Your task to perform on an android device: Show me popular videos on Youtube Image 0: 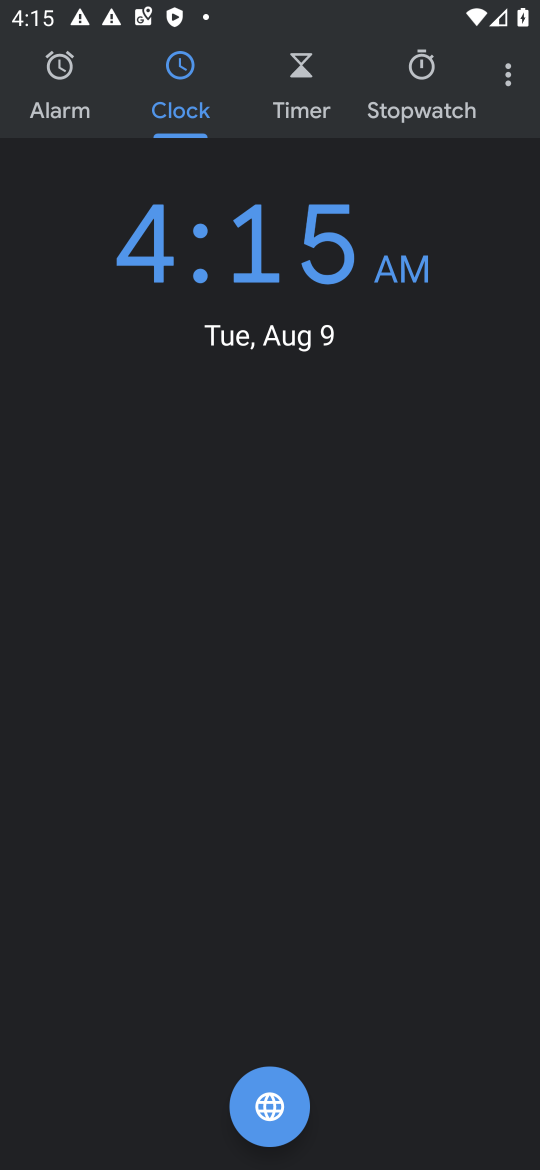
Step 0: press home button
Your task to perform on an android device: Show me popular videos on Youtube Image 1: 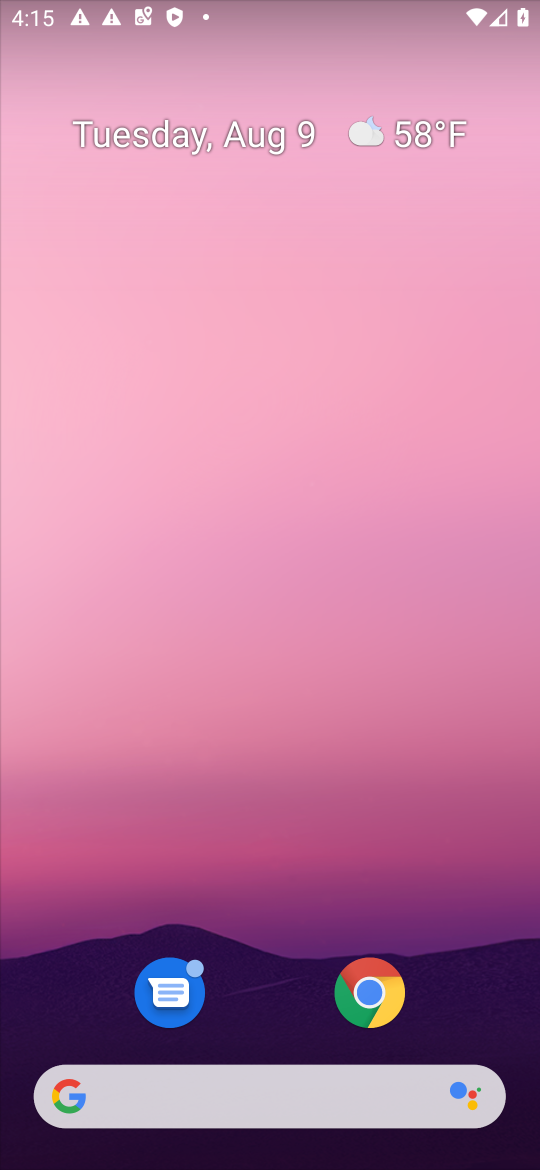
Step 1: drag from (256, 1118) to (142, 54)
Your task to perform on an android device: Show me popular videos on Youtube Image 2: 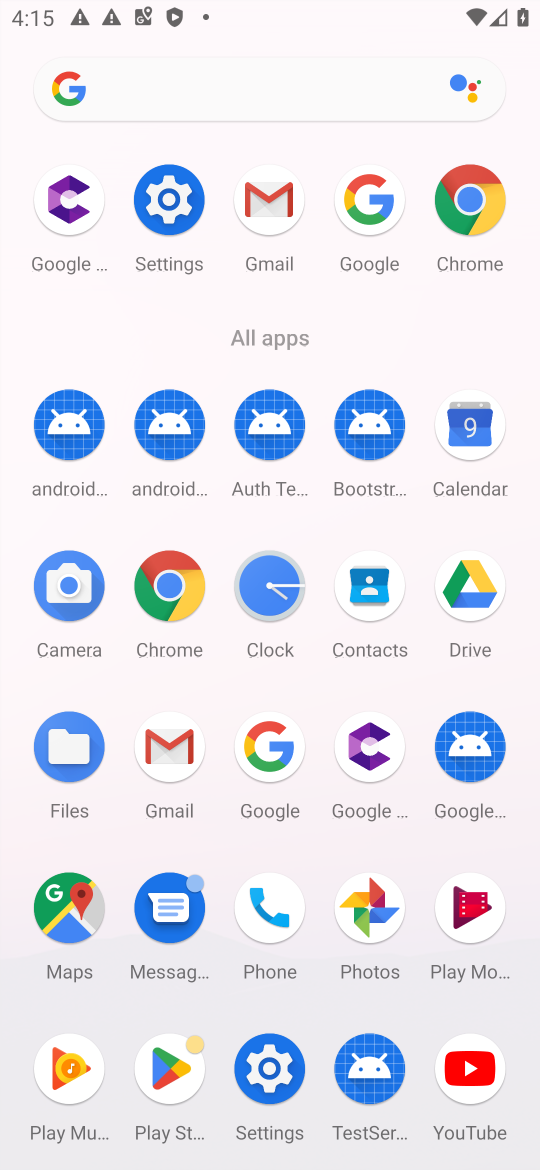
Step 2: click (482, 1091)
Your task to perform on an android device: Show me popular videos on Youtube Image 3: 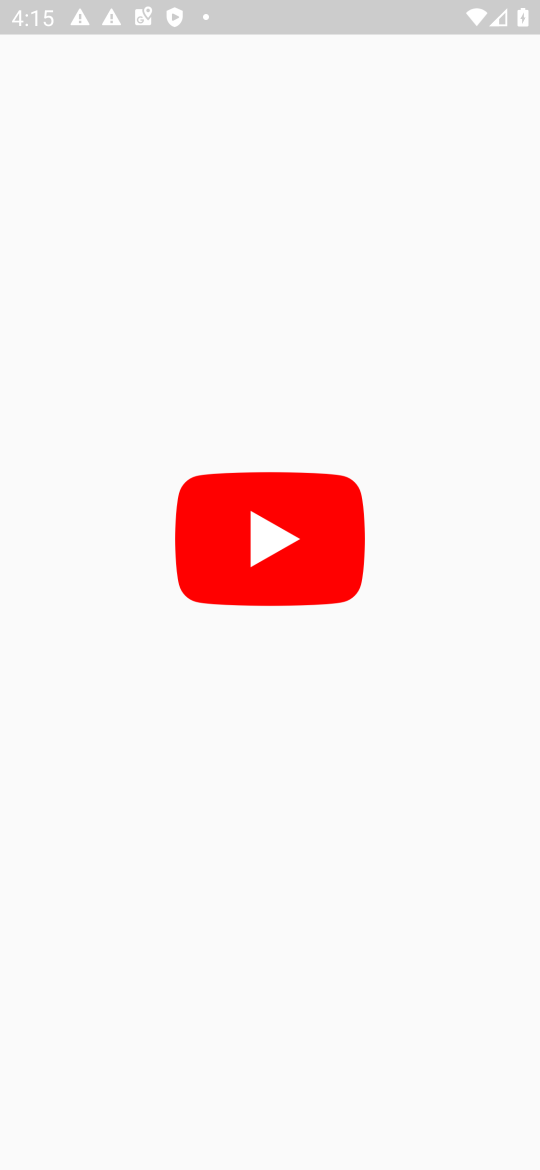
Step 3: click (482, 1091)
Your task to perform on an android device: Show me popular videos on Youtube Image 4: 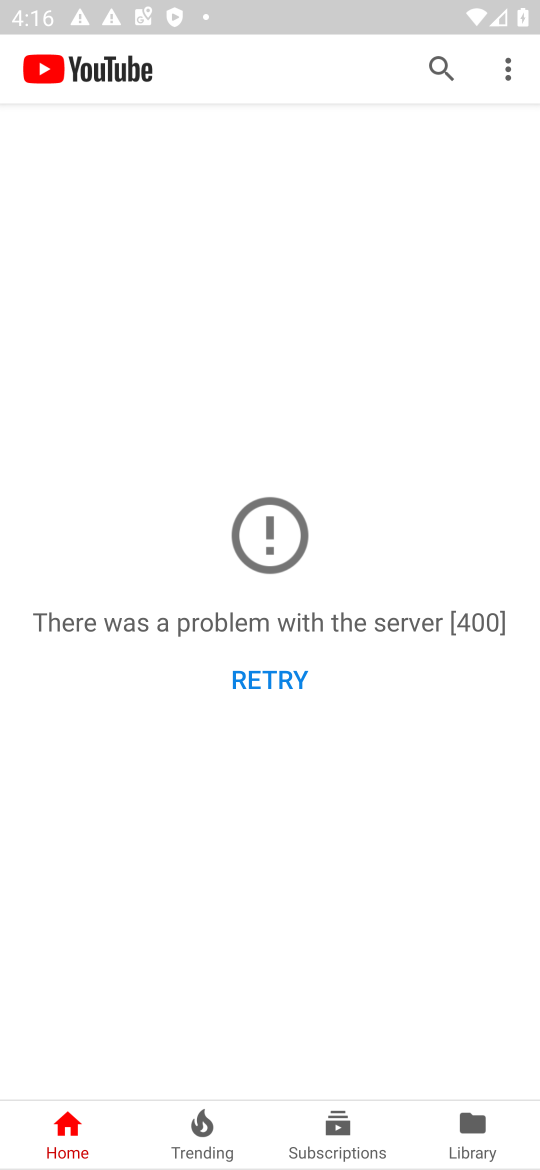
Step 4: task complete